Your task to perform on an android device: turn off smart reply in the gmail app Image 0: 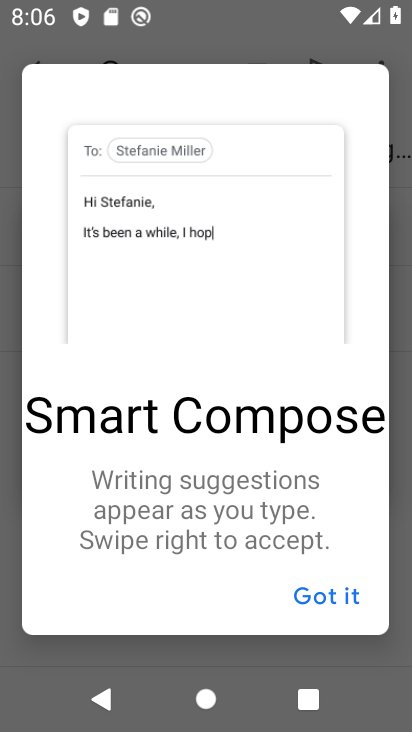
Step 0: press home button
Your task to perform on an android device: turn off smart reply in the gmail app Image 1: 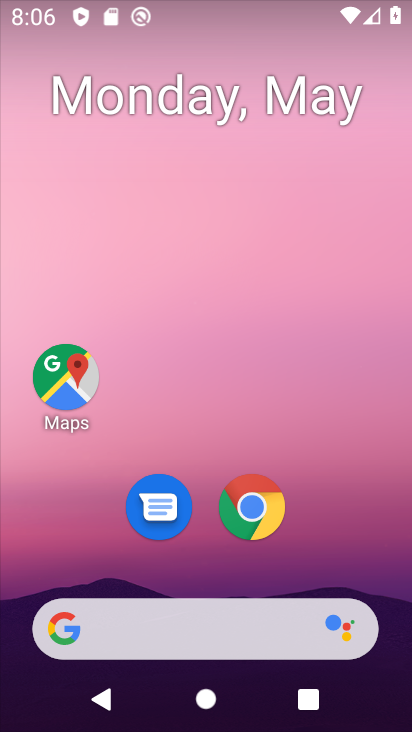
Step 1: drag from (215, 542) to (310, 5)
Your task to perform on an android device: turn off smart reply in the gmail app Image 2: 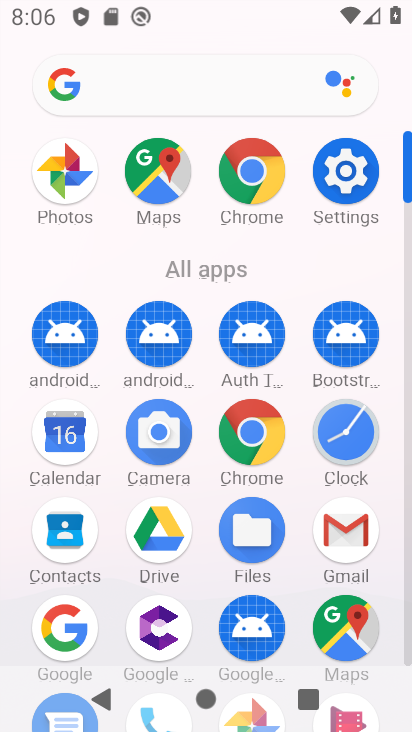
Step 2: click (345, 547)
Your task to perform on an android device: turn off smart reply in the gmail app Image 3: 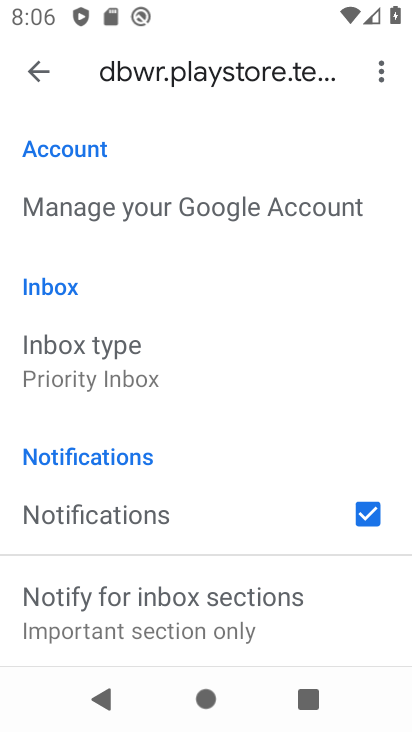
Step 3: drag from (164, 483) to (284, 26)
Your task to perform on an android device: turn off smart reply in the gmail app Image 4: 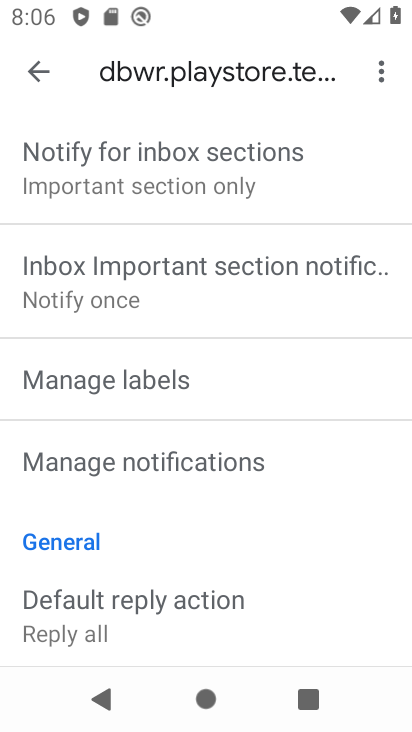
Step 4: drag from (268, 506) to (306, 143)
Your task to perform on an android device: turn off smart reply in the gmail app Image 5: 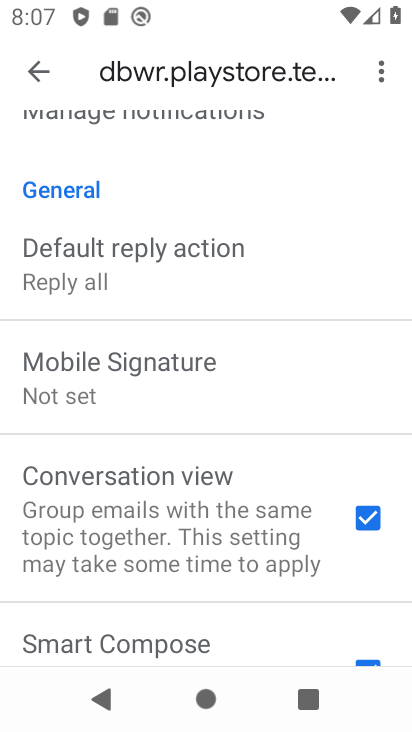
Step 5: drag from (221, 460) to (269, 198)
Your task to perform on an android device: turn off smart reply in the gmail app Image 6: 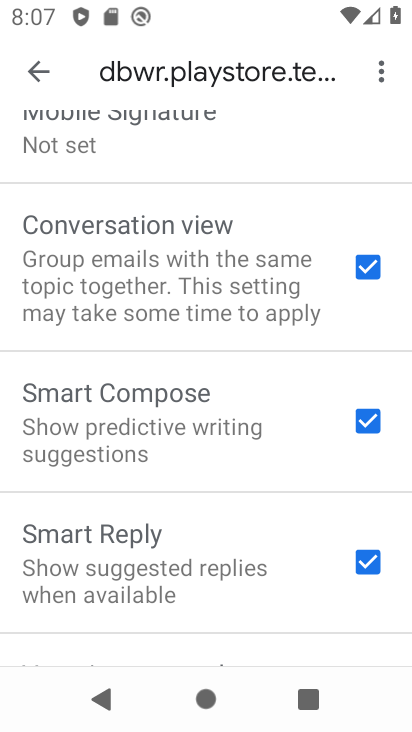
Step 6: drag from (212, 446) to (238, 257)
Your task to perform on an android device: turn off smart reply in the gmail app Image 7: 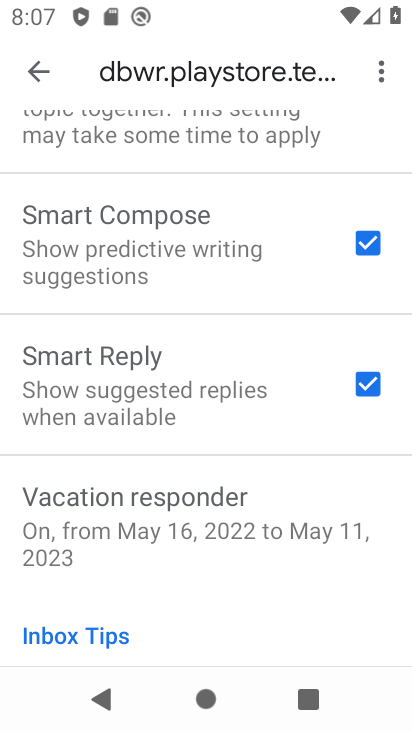
Step 7: click (335, 378)
Your task to perform on an android device: turn off smart reply in the gmail app Image 8: 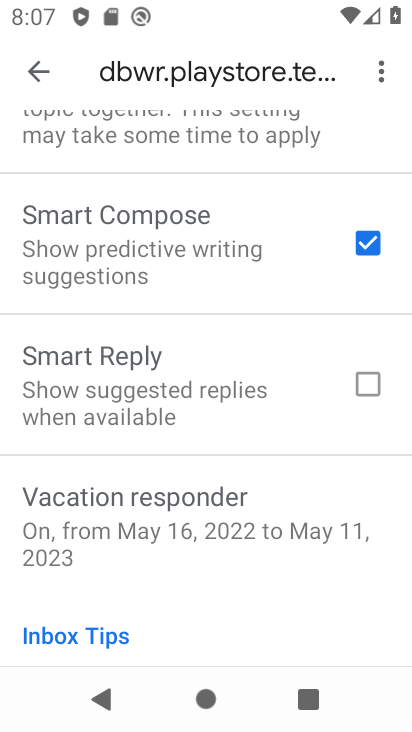
Step 8: task complete